Your task to perform on an android device: Turn off the flashlight Image 0: 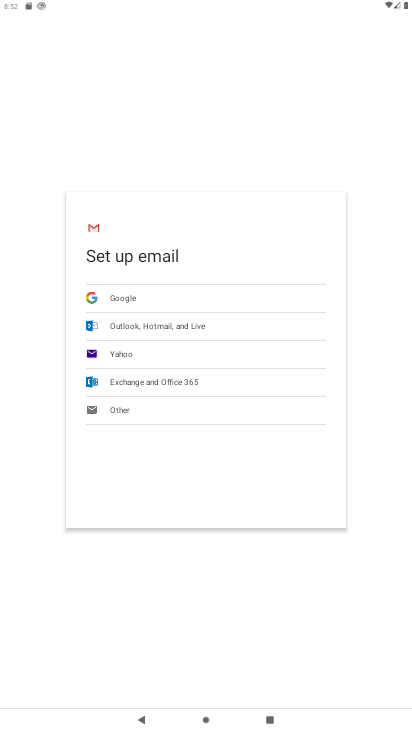
Step 0: press home button
Your task to perform on an android device: Turn off the flashlight Image 1: 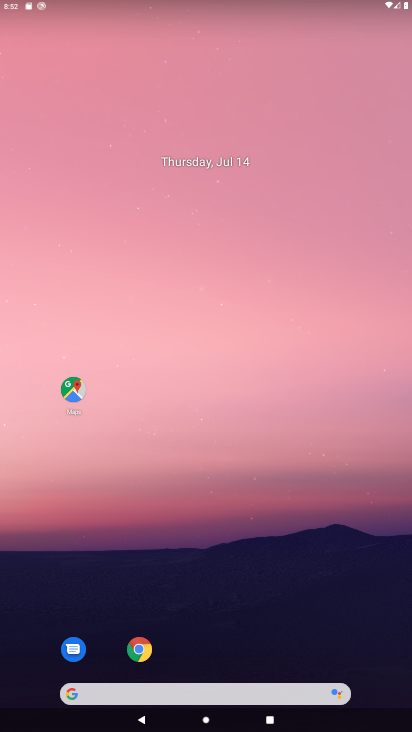
Step 1: drag from (200, 630) to (266, 34)
Your task to perform on an android device: Turn off the flashlight Image 2: 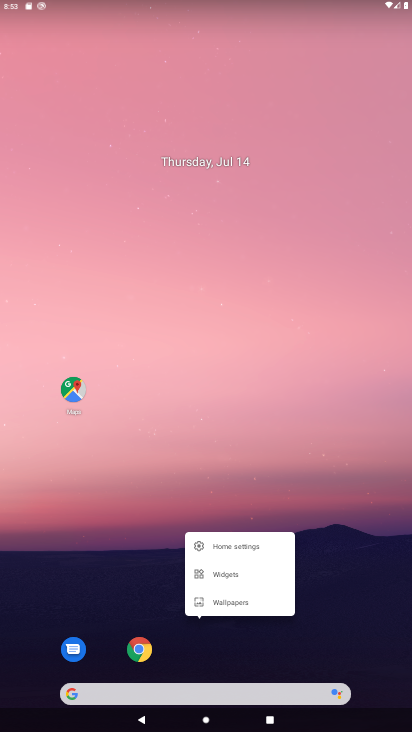
Step 2: click (338, 616)
Your task to perform on an android device: Turn off the flashlight Image 3: 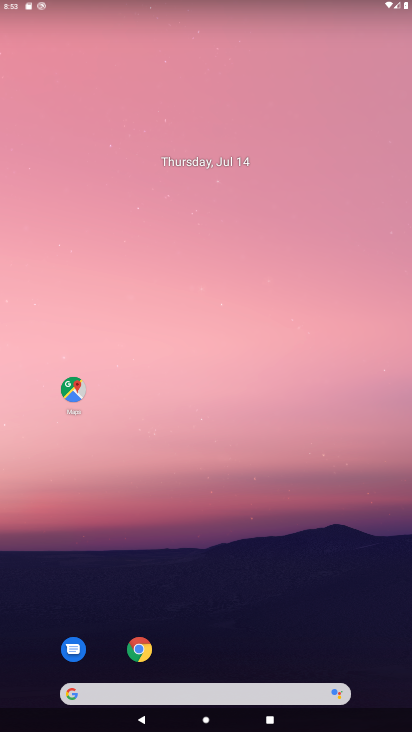
Step 3: drag from (230, 648) to (228, 0)
Your task to perform on an android device: Turn off the flashlight Image 4: 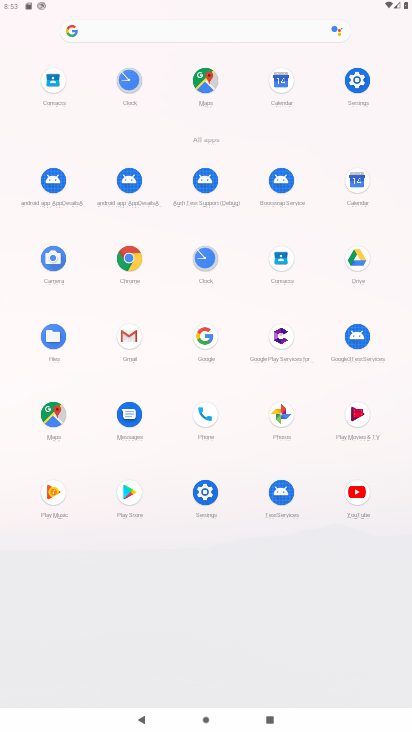
Step 4: click (206, 501)
Your task to perform on an android device: Turn off the flashlight Image 5: 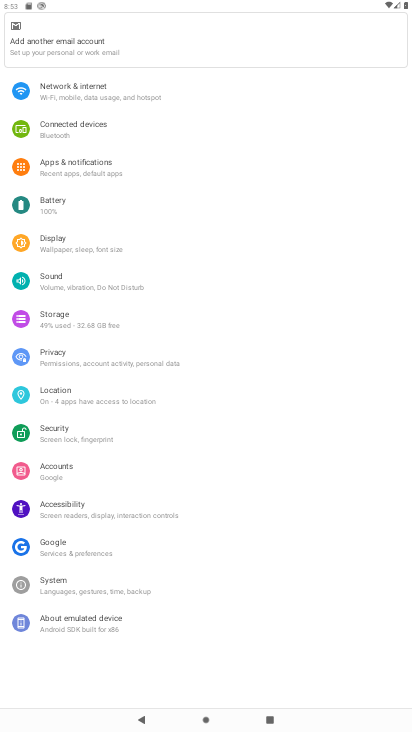
Step 5: drag from (206, 73) to (196, 492)
Your task to perform on an android device: Turn off the flashlight Image 6: 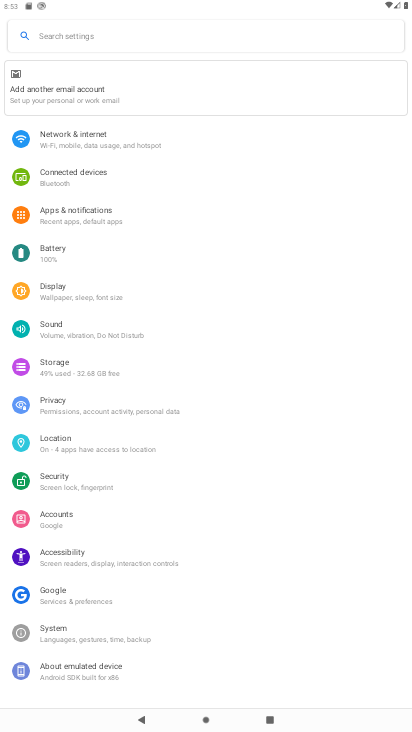
Step 6: click (200, 36)
Your task to perform on an android device: Turn off the flashlight Image 7: 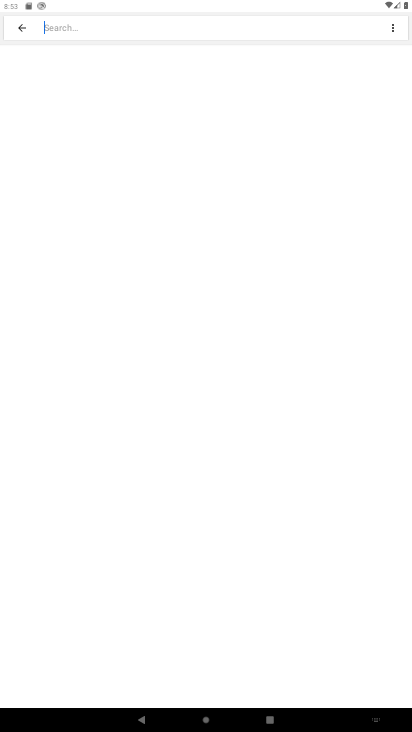
Step 7: type "flashlight"
Your task to perform on an android device: Turn off the flashlight Image 8: 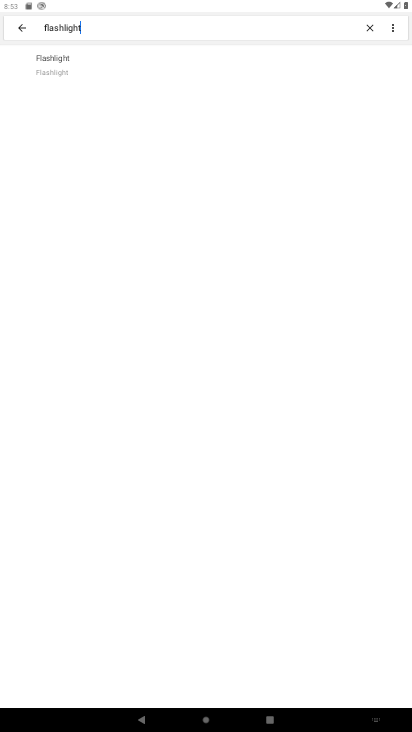
Step 8: click (95, 72)
Your task to perform on an android device: Turn off the flashlight Image 9: 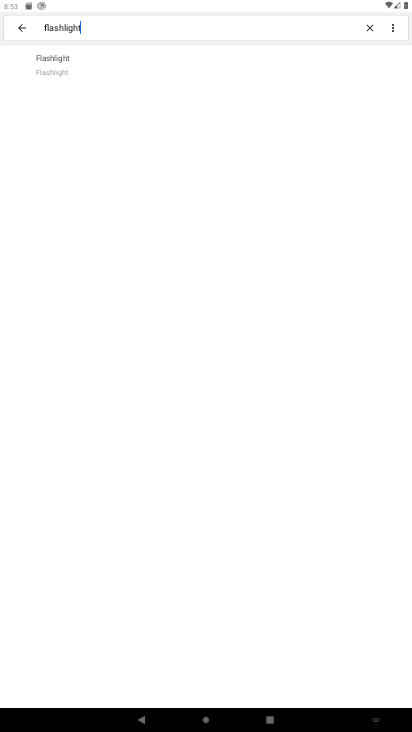
Step 9: click (38, 61)
Your task to perform on an android device: Turn off the flashlight Image 10: 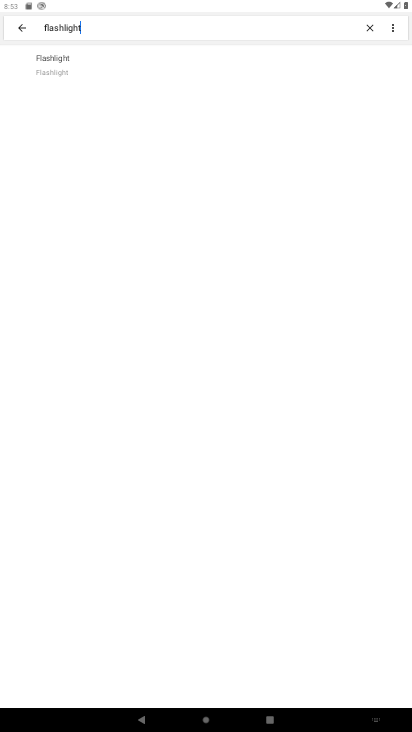
Step 10: click (45, 63)
Your task to perform on an android device: Turn off the flashlight Image 11: 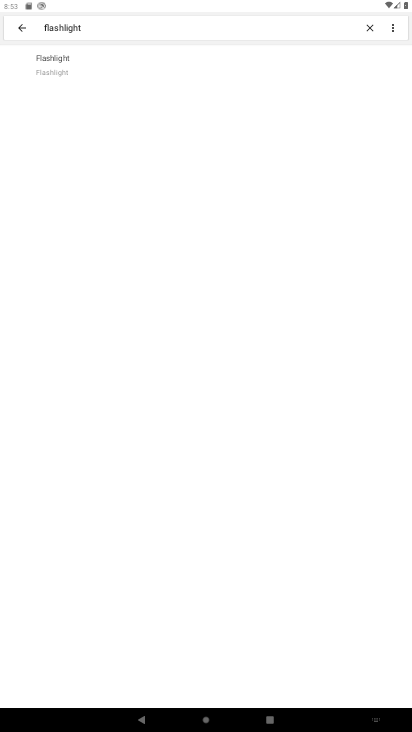
Step 11: task complete